Your task to perform on an android device: check data usage Image 0: 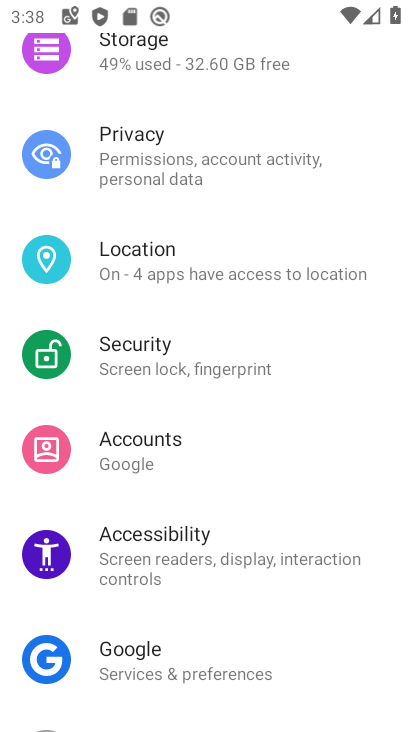
Step 0: drag from (224, 139) to (247, 579)
Your task to perform on an android device: check data usage Image 1: 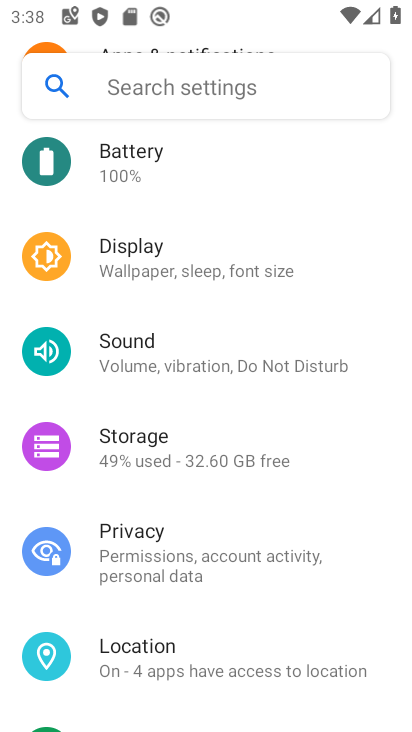
Step 1: drag from (212, 189) to (209, 580)
Your task to perform on an android device: check data usage Image 2: 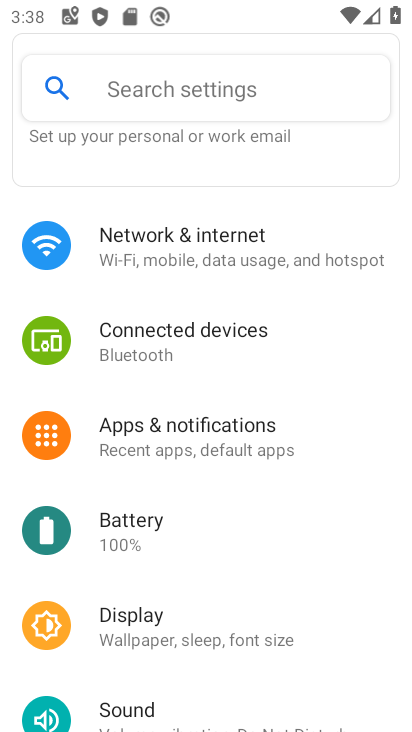
Step 2: click (244, 244)
Your task to perform on an android device: check data usage Image 3: 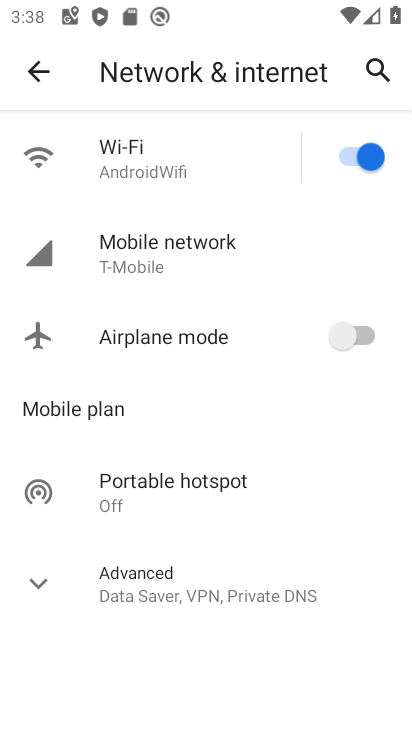
Step 3: click (244, 244)
Your task to perform on an android device: check data usage Image 4: 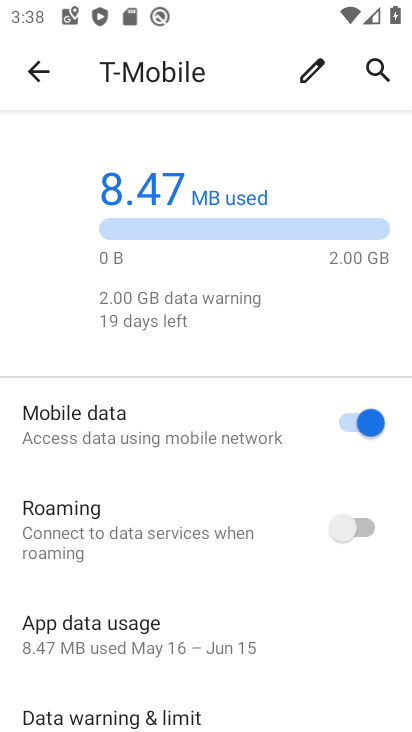
Step 4: task complete